Your task to perform on an android device: Open wifi settings Image 0: 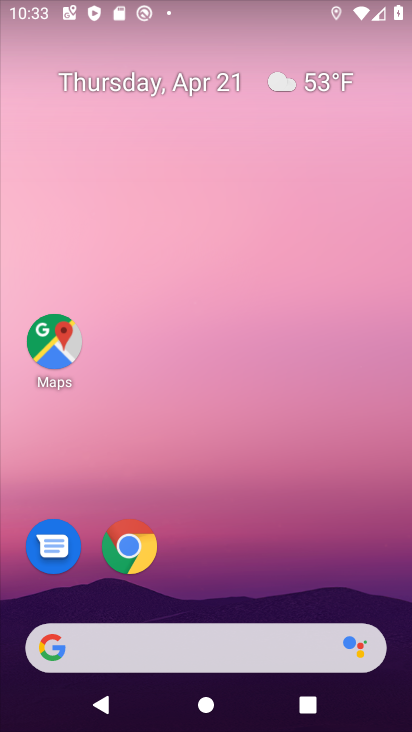
Step 0: click (250, 84)
Your task to perform on an android device: Open wifi settings Image 1: 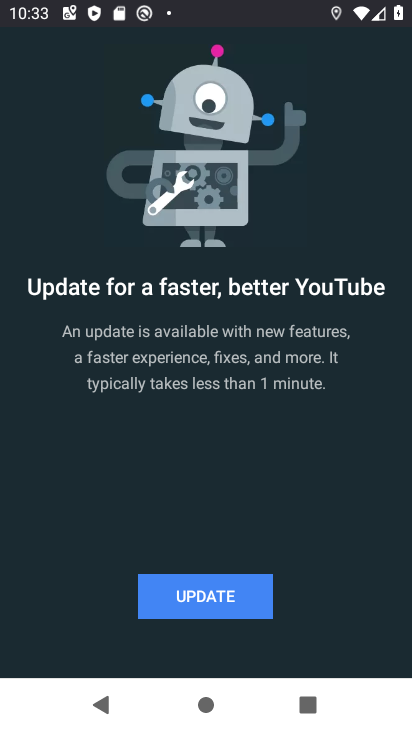
Step 1: press back button
Your task to perform on an android device: Open wifi settings Image 2: 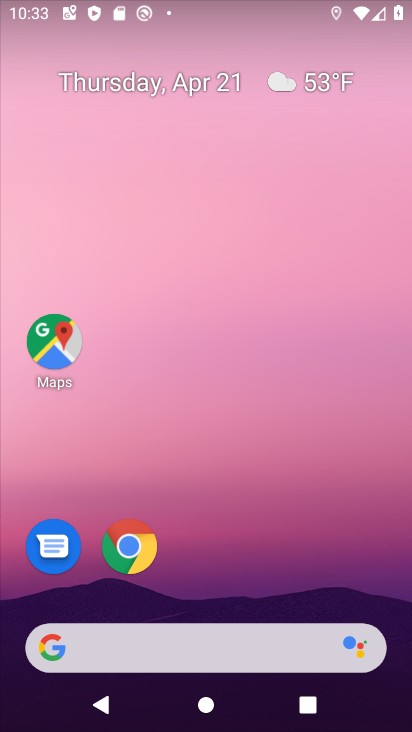
Step 2: drag from (215, 504) to (242, 150)
Your task to perform on an android device: Open wifi settings Image 3: 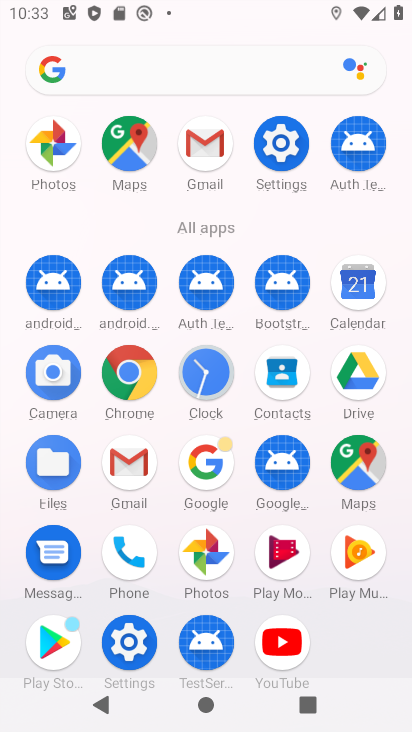
Step 3: click (299, 139)
Your task to perform on an android device: Open wifi settings Image 4: 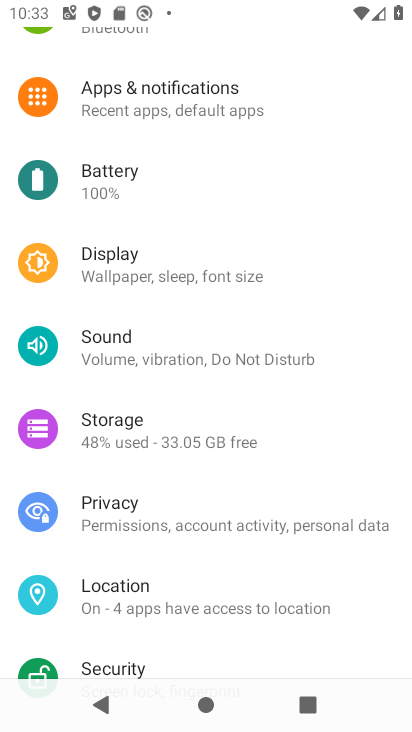
Step 4: drag from (148, 226) to (165, 568)
Your task to perform on an android device: Open wifi settings Image 5: 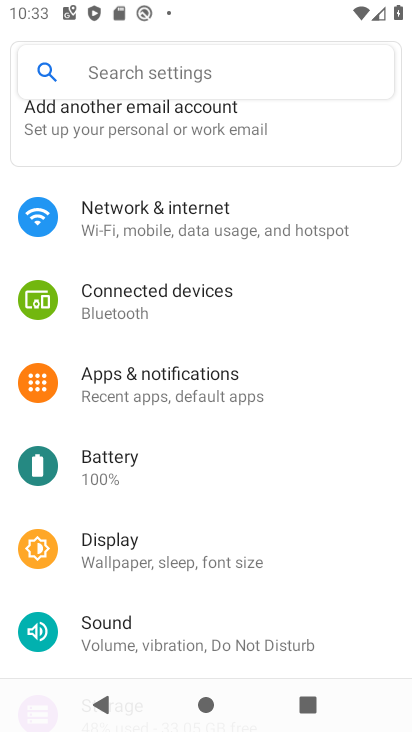
Step 5: click (188, 237)
Your task to perform on an android device: Open wifi settings Image 6: 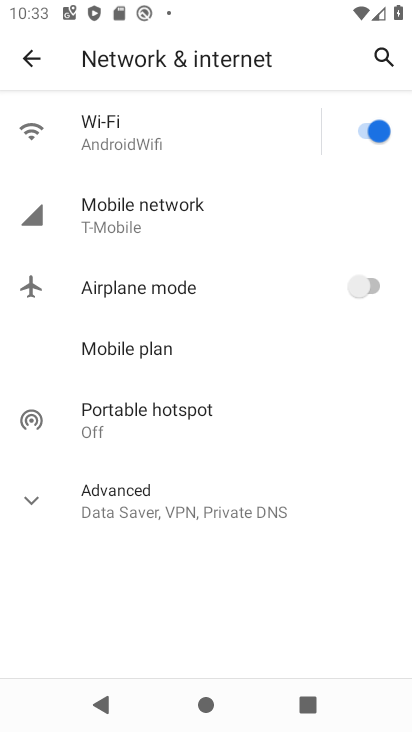
Step 6: click (169, 138)
Your task to perform on an android device: Open wifi settings Image 7: 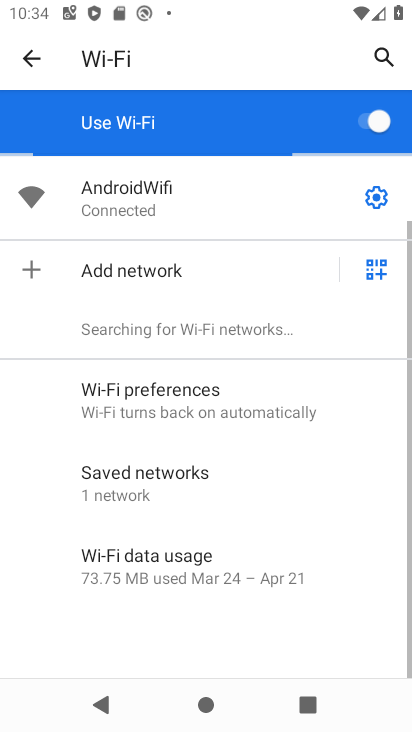
Step 7: task complete